Your task to perform on an android device: Go to Android settings Image 0: 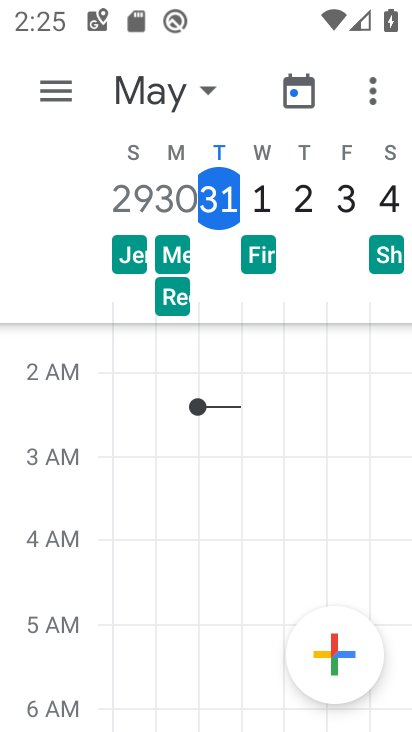
Step 0: press home button
Your task to perform on an android device: Go to Android settings Image 1: 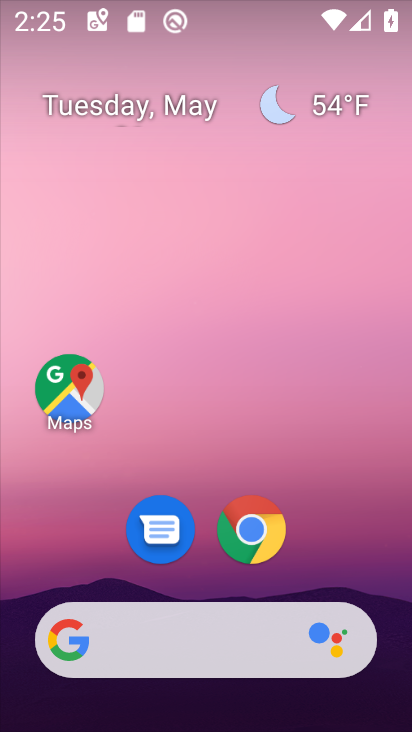
Step 1: drag from (339, 563) to (298, 233)
Your task to perform on an android device: Go to Android settings Image 2: 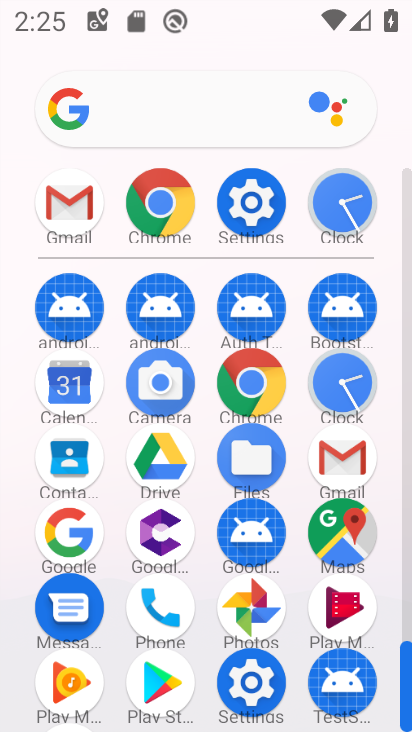
Step 2: click (254, 202)
Your task to perform on an android device: Go to Android settings Image 3: 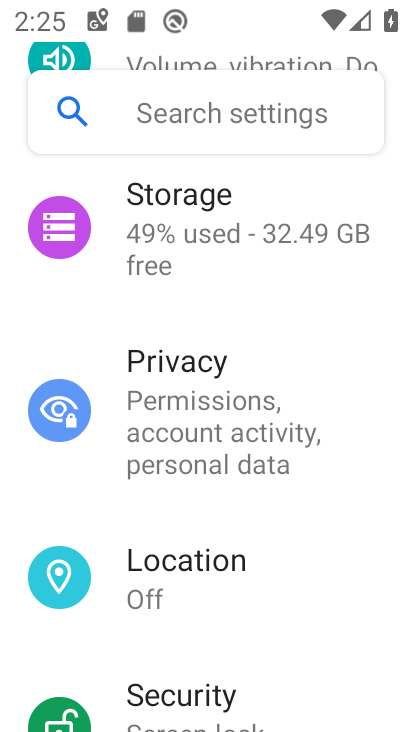
Step 3: task complete